Your task to perform on an android device: manage bookmarks in the chrome app Image 0: 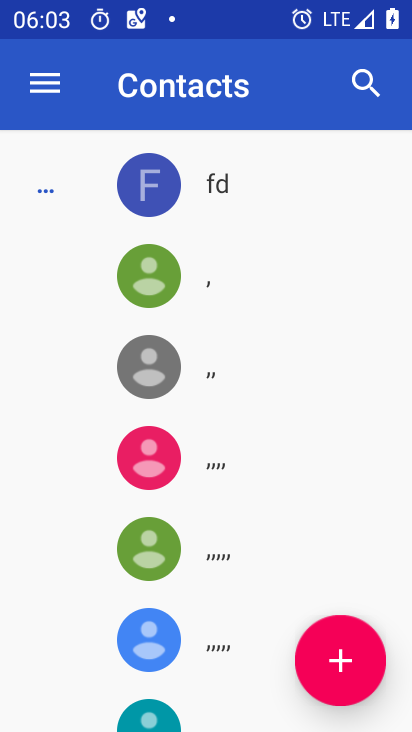
Step 0: press home button
Your task to perform on an android device: manage bookmarks in the chrome app Image 1: 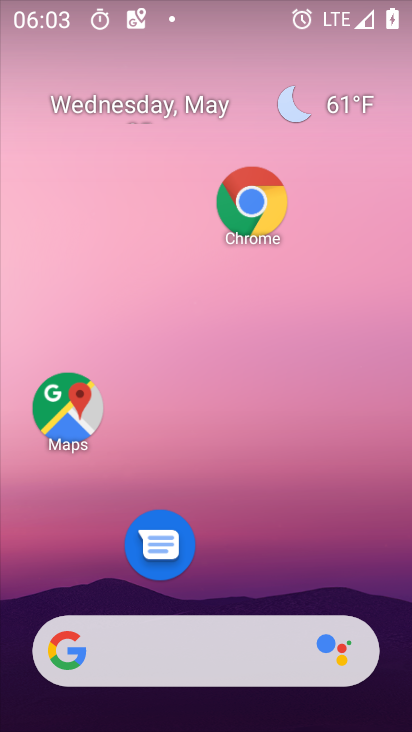
Step 1: drag from (238, 634) to (224, 179)
Your task to perform on an android device: manage bookmarks in the chrome app Image 2: 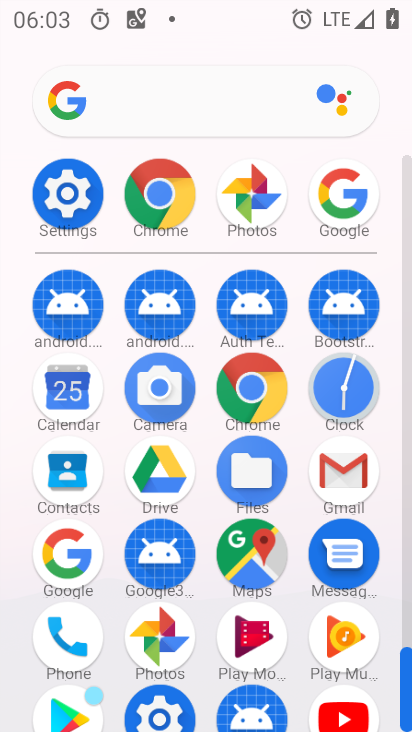
Step 2: click (254, 394)
Your task to perform on an android device: manage bookmarks in the chrome app Image 3: 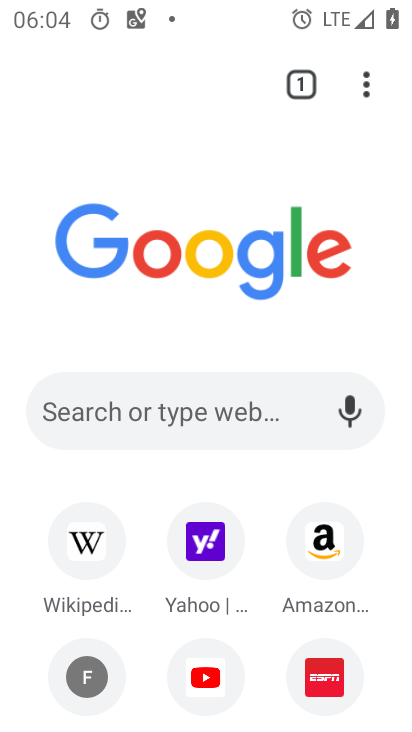
Step 3: click (368, 82)
Your task to perform on an android device: manage bookmarks in the chrome app Image 4: 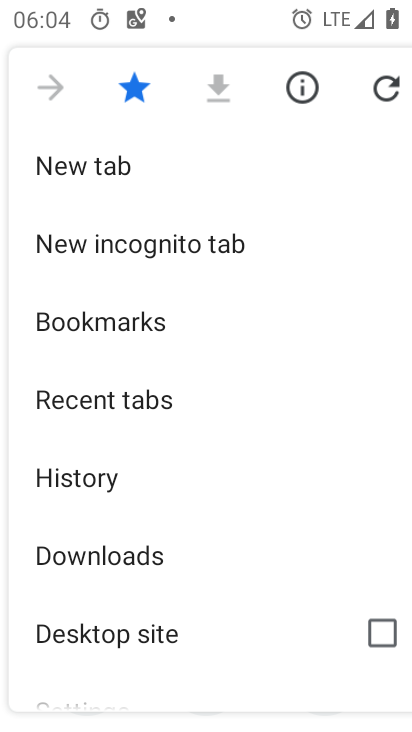
Step 4: drag from (132, 681) to (170, 371)
Your task to perform on an android device: manage bookmarks in the chrome app Image 5: 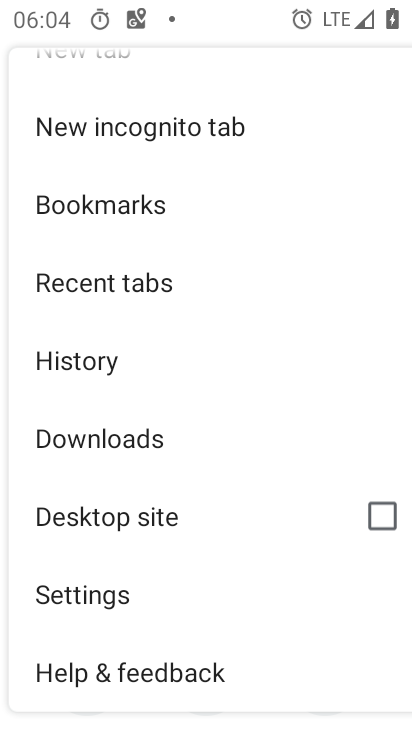
Step 5: click (105, 210)
Your task to perform on an android device: manage bookmarks in the chrome app Image 6: 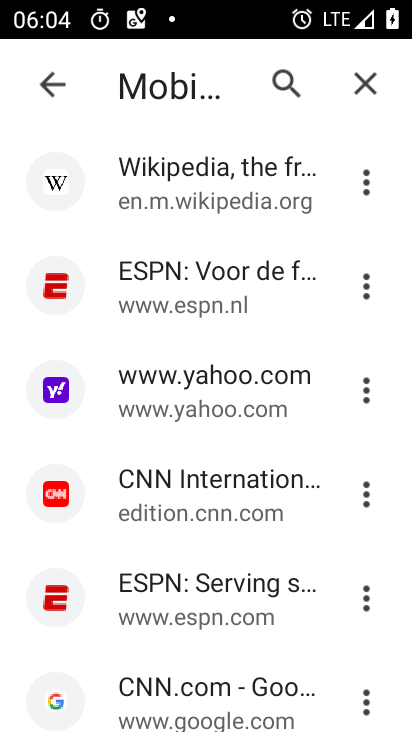
Step 6: click (119, 597)
Your task to perform on an android device: manage bookmarks in the chrome app Image 7: 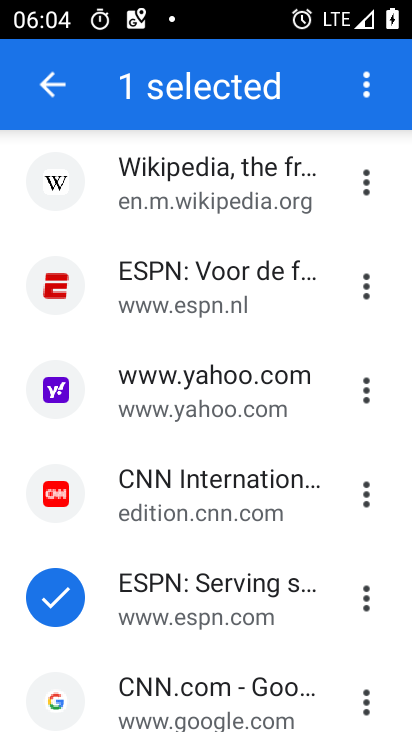
Step 7: click (368, 83)
Your task to perform on an android device: manage bookmarks in the chrome app Image 8: 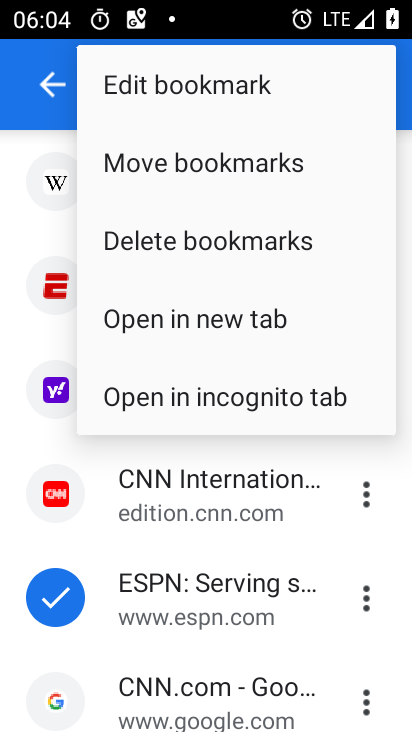
Step 8: click (184, 247)
Your task to perform on an android device: manage bookmarks in the chrome app Image 9: 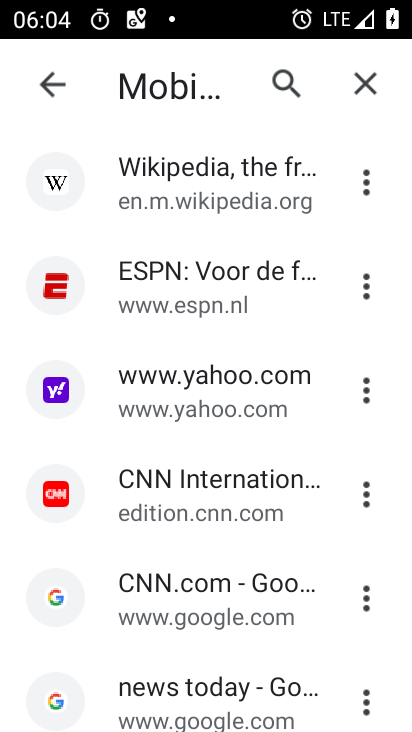
Step 9: task complete